Your task to perform on an android device: Open Google Image 0: 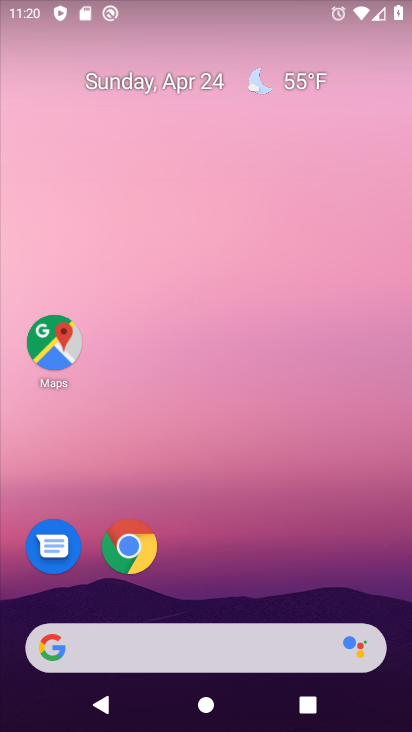
Step 0: drag from (250, 506) to (235, 75)
Your task to perform on an android device: Open Google Image 1: 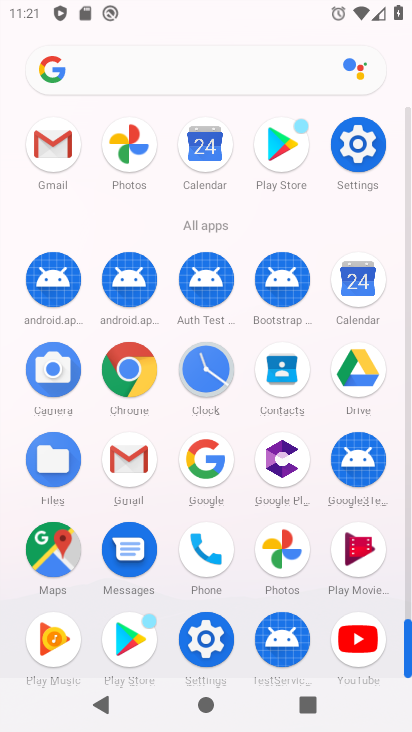
Step 1: click (205, 456)
Your task to perform on an android device: Open Google Image 2: 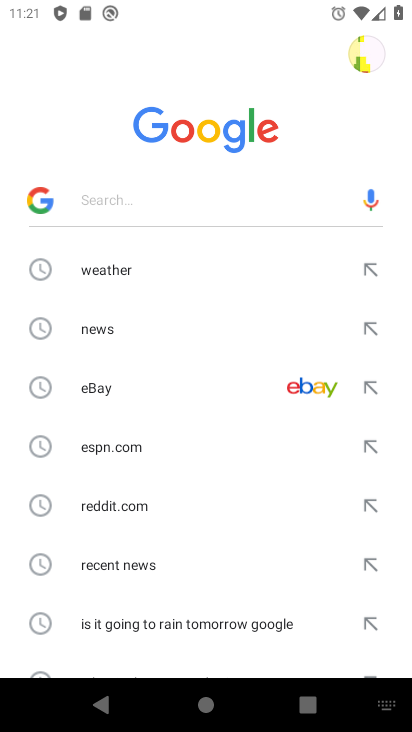
Step 2: task complete